Your task to perform on an android device: open chrome and create a bookmark for the current page Image 0: 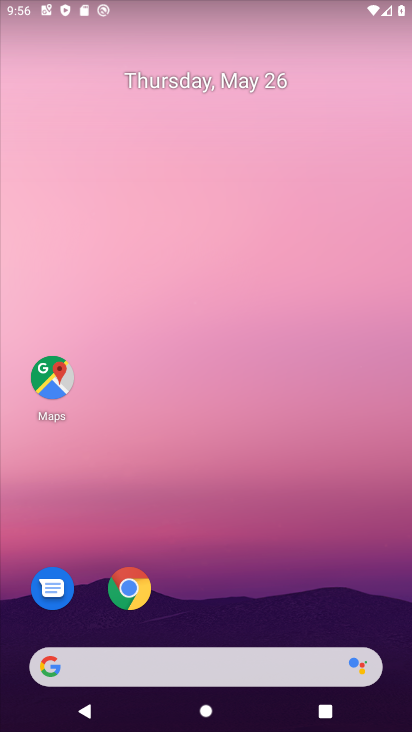
Step 0: click (132, 605)
Your task to perform on an android device: open chrome and create a bookmark for the current page Image 1: 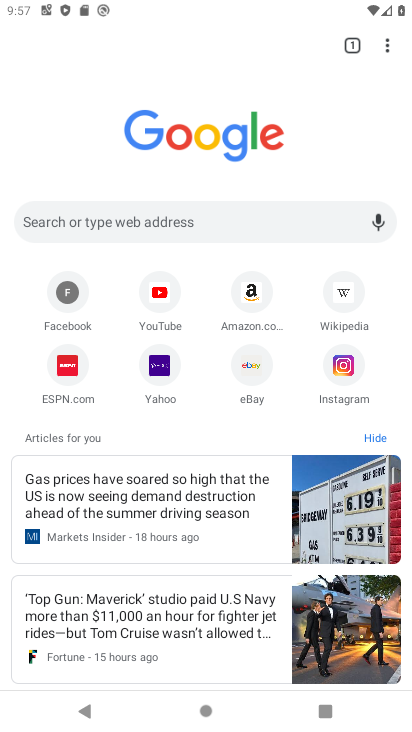
Step 1: click (387, 52)
Your task to perform on an android device: open chrome and create a bookmark for the current page Image 2: 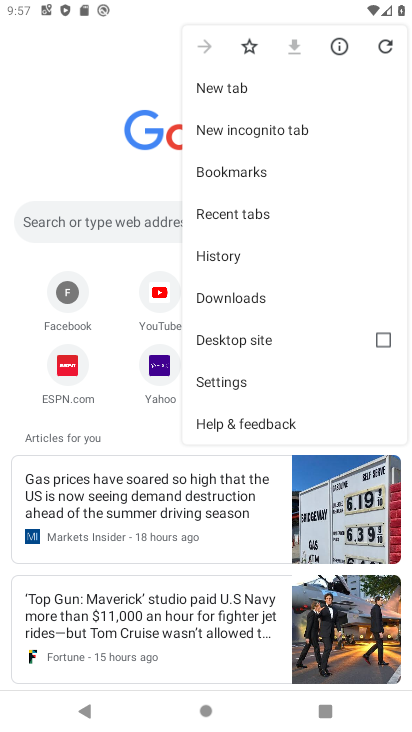
Step 2: click (248, 45)
Your task to perform on an android device: open chrome and create a bookmark for the current page Image 3: 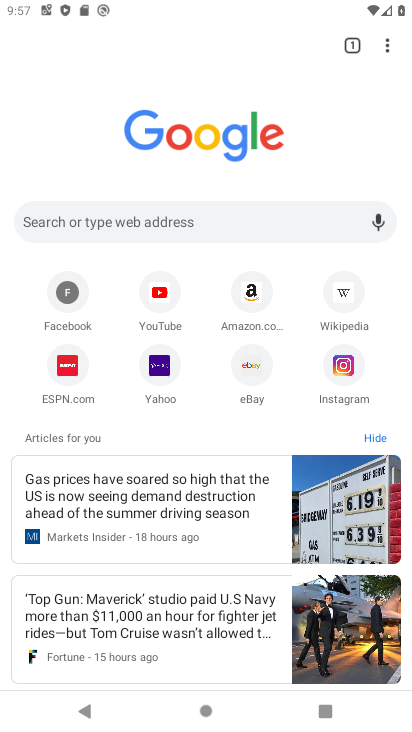
Step 3: task complete